Your task to perform on an android device: turn notification dots on Image 0: 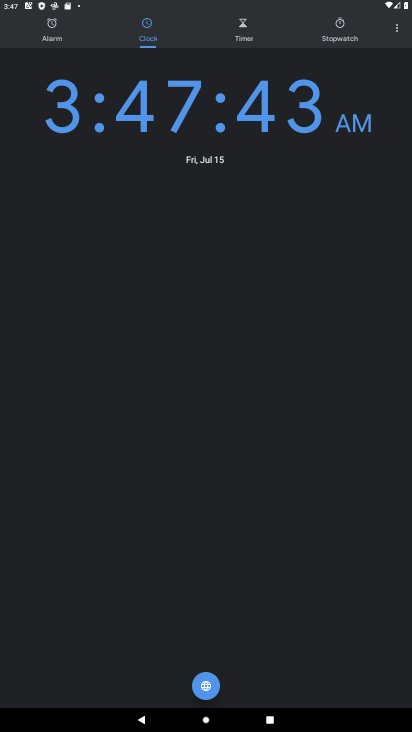
Step 0: press home button
Your task to perform on an android device: turn notification dots on Image 1: 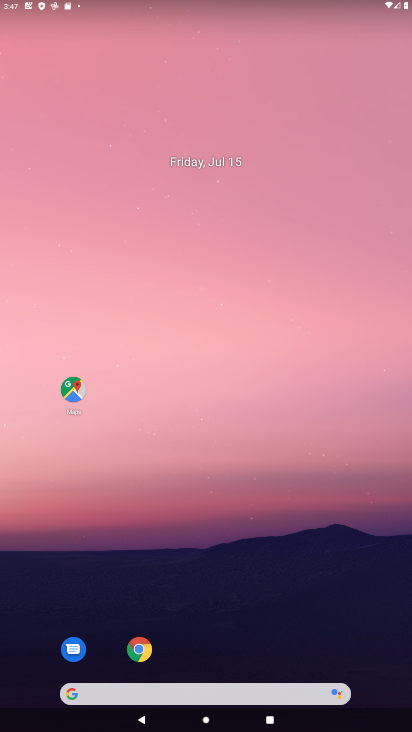
Step 1: drag from (288, 614) to (244, 73)
Your task to perform on an android device: turn notification dots on Image 2: 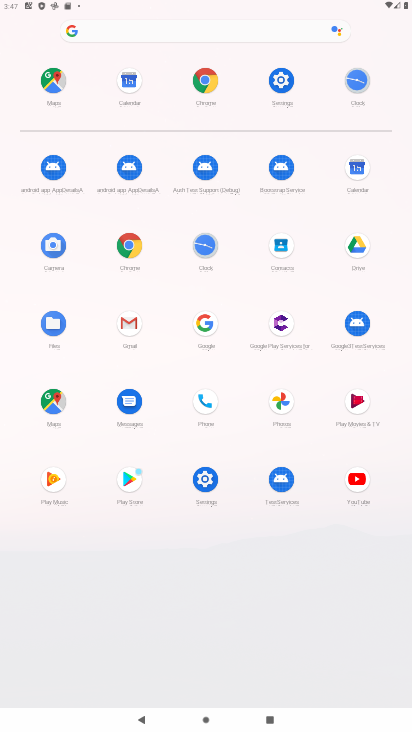
Step 2: click (271, 80)
Your task to perform on an android device: turn notification dots on Image 3: 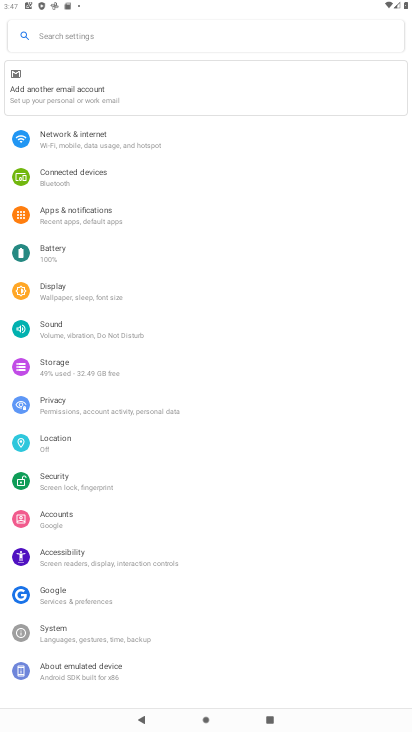
Step 3: click (66, 213)
Your task to perform on an android device: turn notification dots on Image 4: 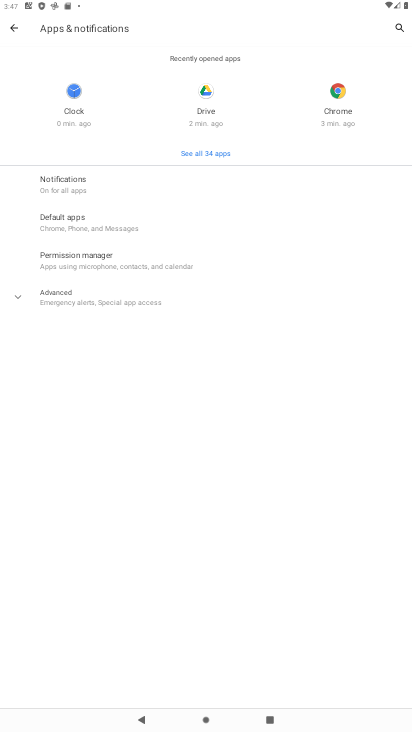
Step 4: click (63, 192)
Your task to perform on an android device: turn notification dots on Image 5: 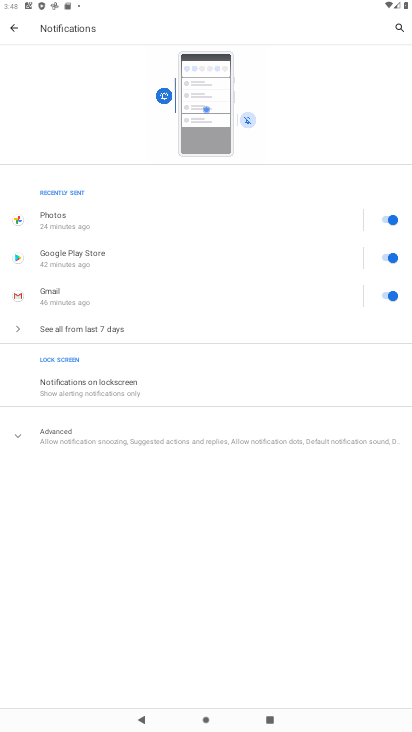
Step 5: click (135, 433)
Your task to perform on an android device: turn notification dots on Image 6: 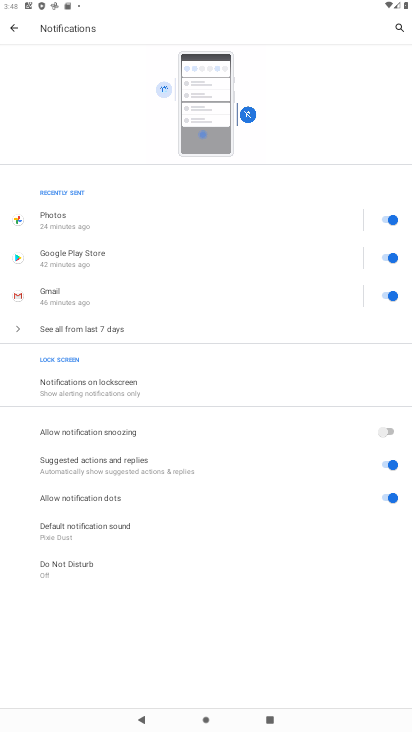
Step 6: task complete